Your task to perform on an android device: toggle location history Image 0: 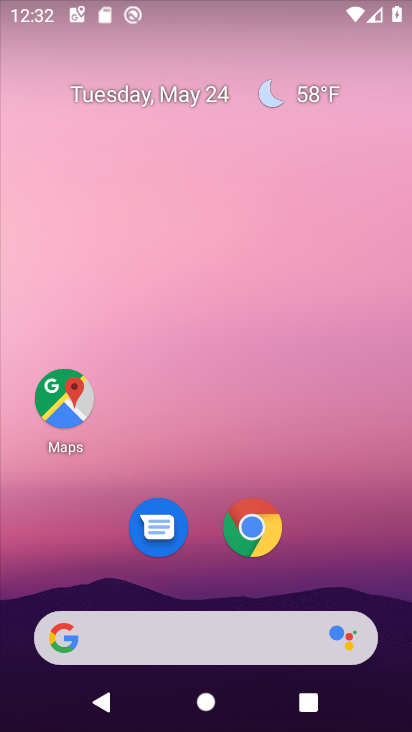
Step 0: click (60, 379)
Your task to perform on an android device: toggle location history Image 1: 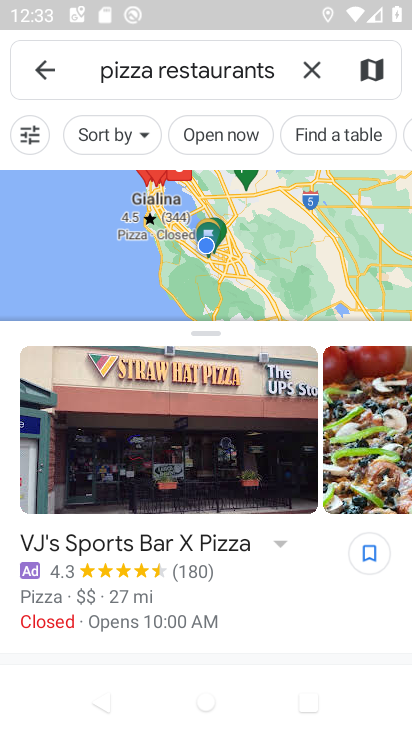
Step 1: click (44, 81)
Your task to perform on an android device: toggle location history Image 2: 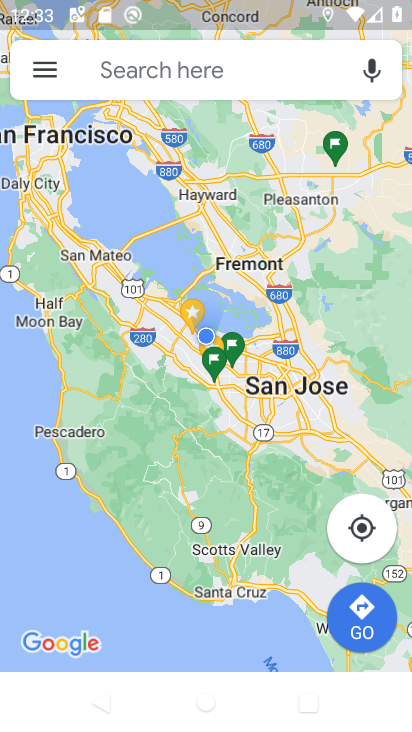
Step 2: click (44, 74)
Your task to perform on an android device: toggle location history Image 3: 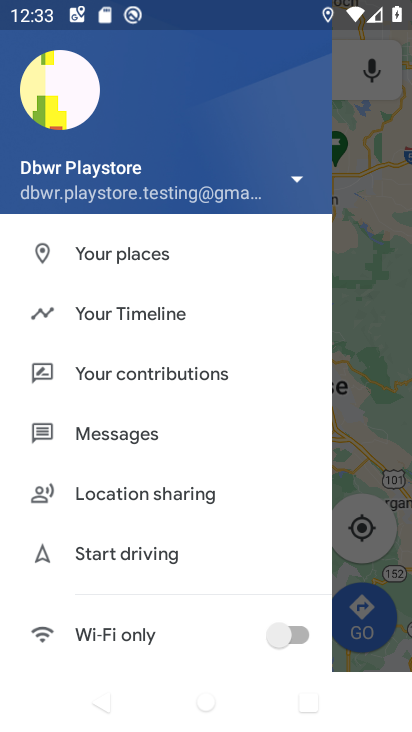
Step 3: click (121, 319)
Your task to perform on an android device: toggle location history Image 4: 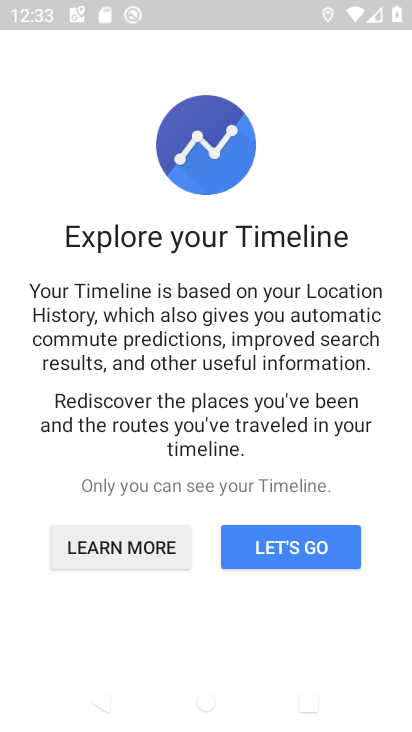
Step 4: click (282, 541)
Your task to perform on an android device: toggle location history Image 5: 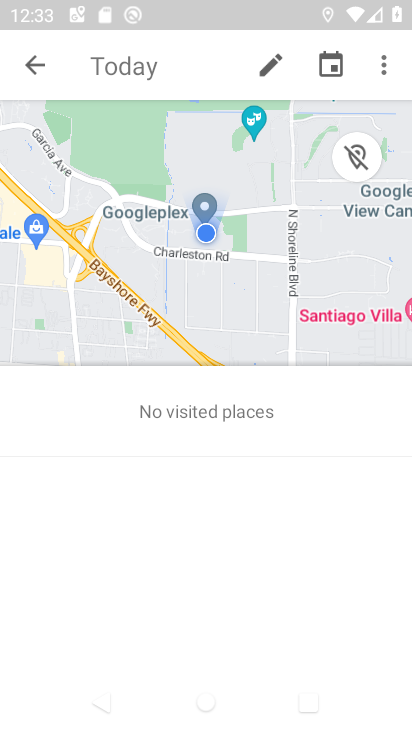
Step 5: click (385, 57)
Your task to perform on an android device: toggle location history Image 6: 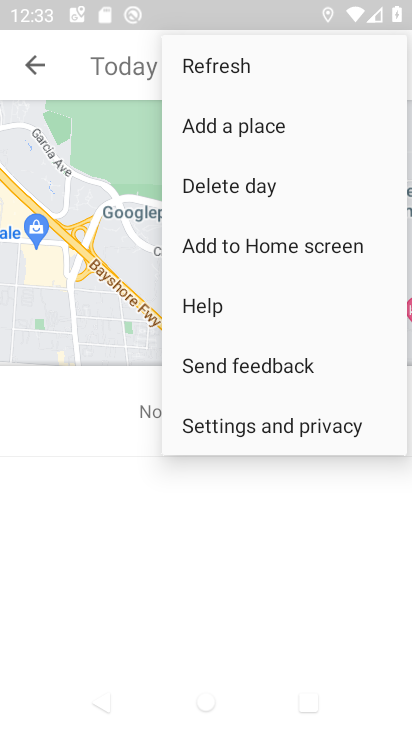
Step 6: click (355, 431)
Your task to perform on an android device: toggle location history Image 7: 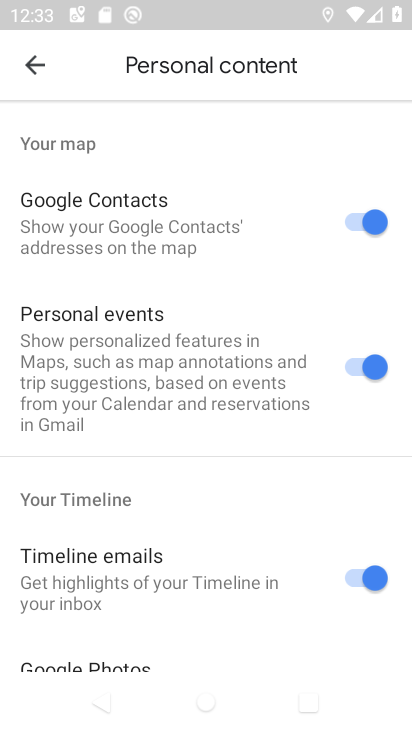
Step 7: drag from (224, 634) to (213, 250)
Your task to perform on an android device: toggle location history Image 8: 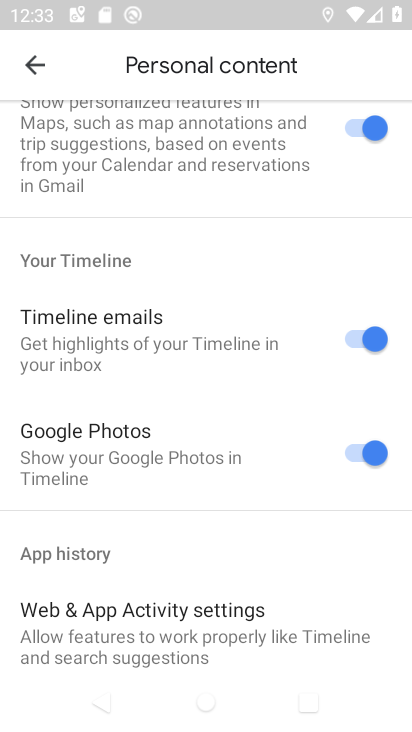
Step 8: drag from (220, 678) to (206, 326)
Your task to perform on an android device: toggle location history Image 9: 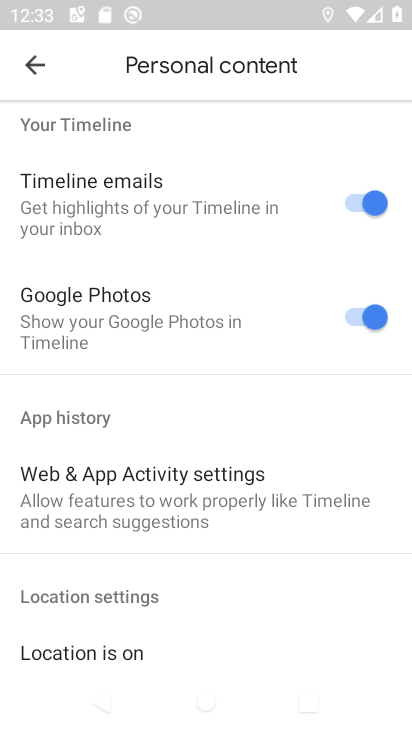
Step 9: drag from (264, 603) to (248, 313)
Your task to perform on an android device: toggle location history Image 10: 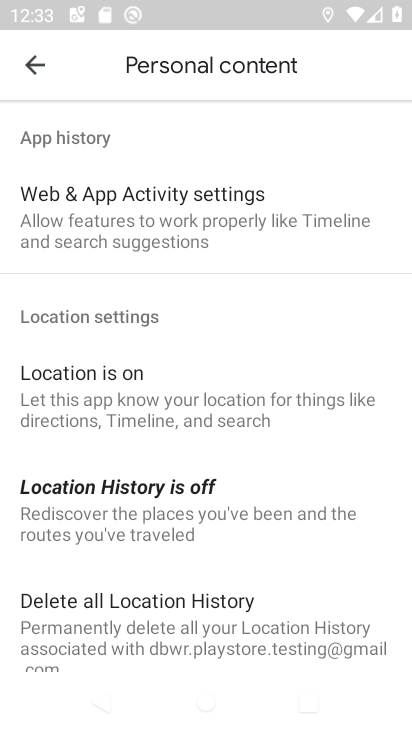
Step 10: click (270, 517)
Your task to perform on an android device: toggle location history Image 11: 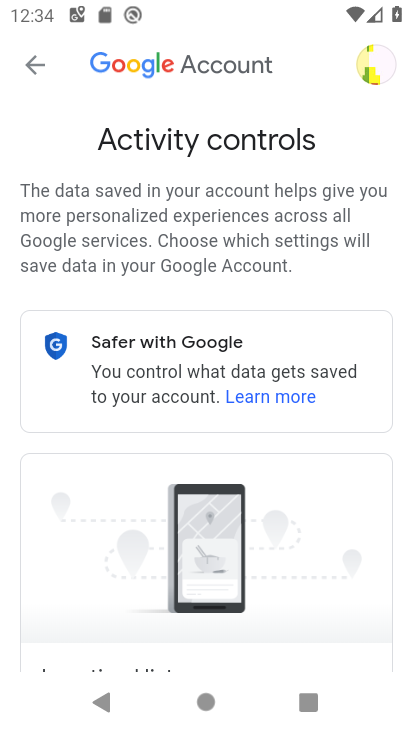
Step 11: drag from (264, 627) to (241, 258)
Your task to perform on an android device: toggle location history Image 12: 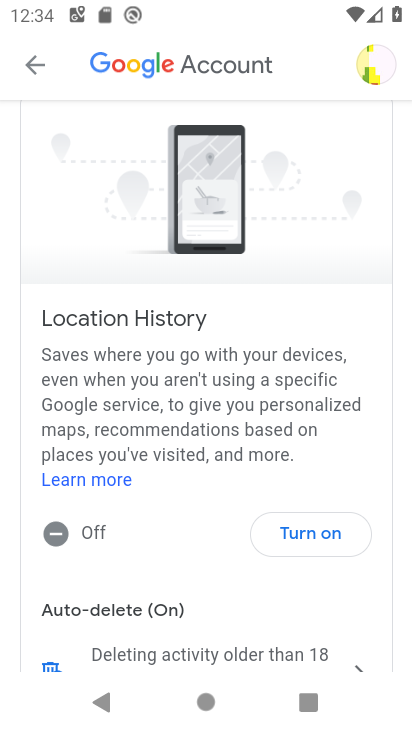
Step 12: click (323, 533)
Your task to perform on an android device: toggle location history Image 13: 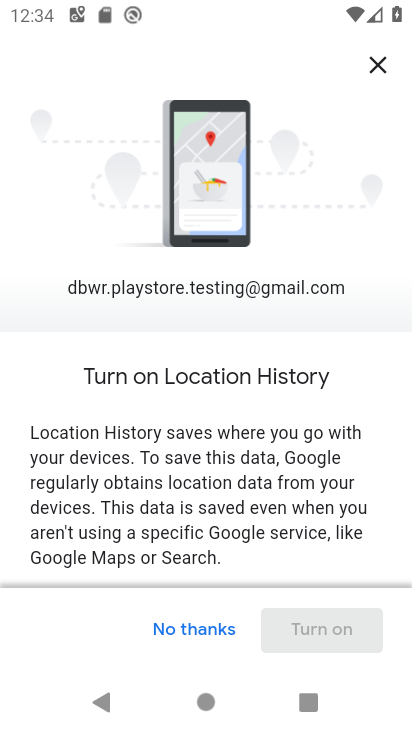
Step 13: drag from (327, 561) to (297, 255)
Your task to perform on an android device: toggle location history Image 14: 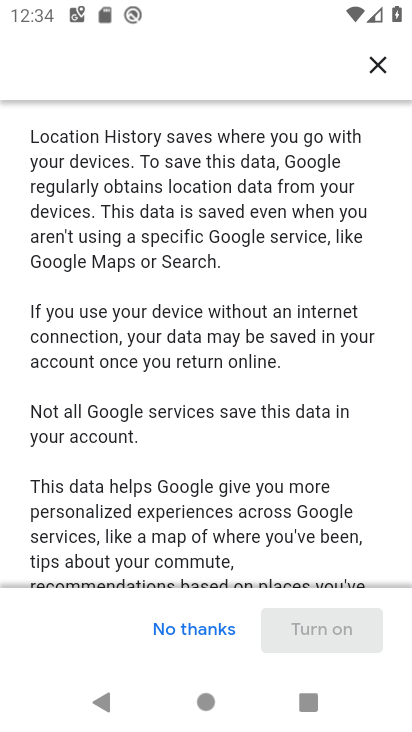
Step 14: drag from (327, 570) to (310, 246)
Your task to perform on an android device: toggle location history Image 15: 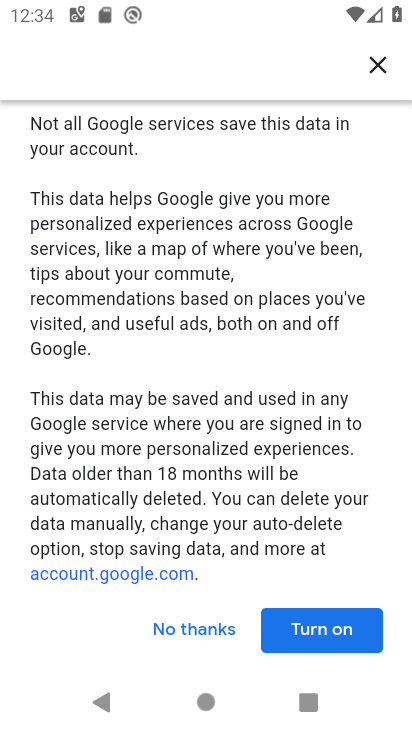
Step 15: click (349, 628)
Your task to perform on an android device: toggle location history Image 16: 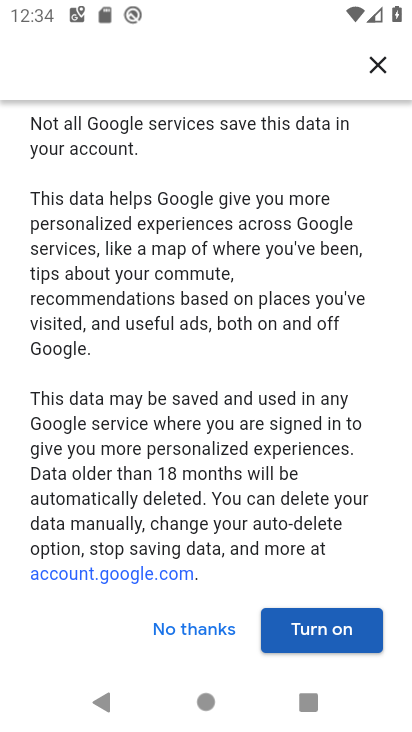
Step 16: click (325, 639)
Your task to perform on an android device: toggle location history Image 17: 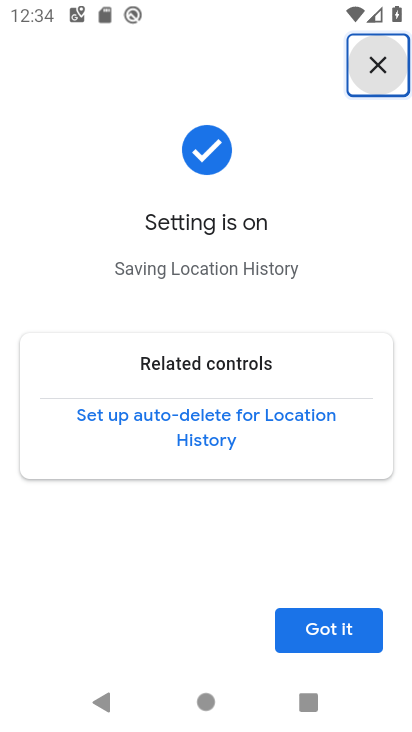
Step 17: click (322, 634)
Your task to perform on an android device: toggle location history Image 18: 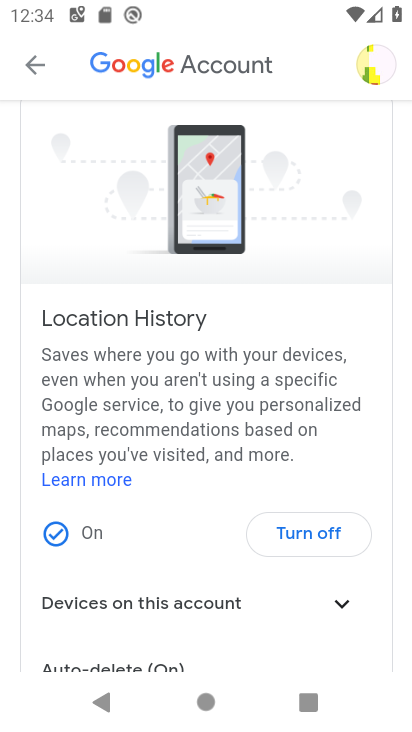
Step 18: task complete